Your task to perform on an android device: turn smart compose on in the gmail app Image 0: 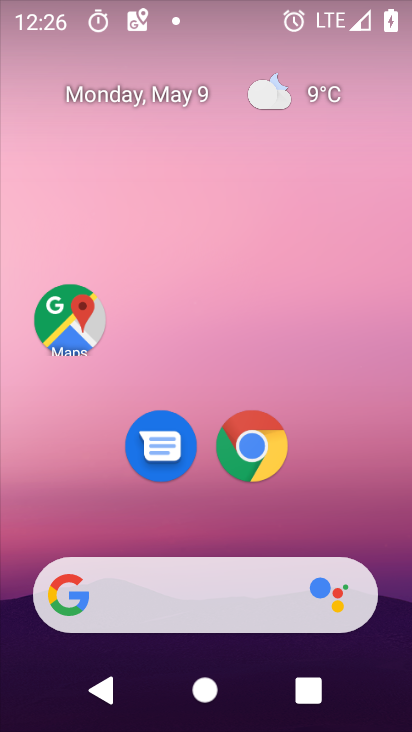
Step 0: drag from (360, 549) to (378, 54)
Your task to perform on an android device: turn smart compose on in the gmail app Image 1: 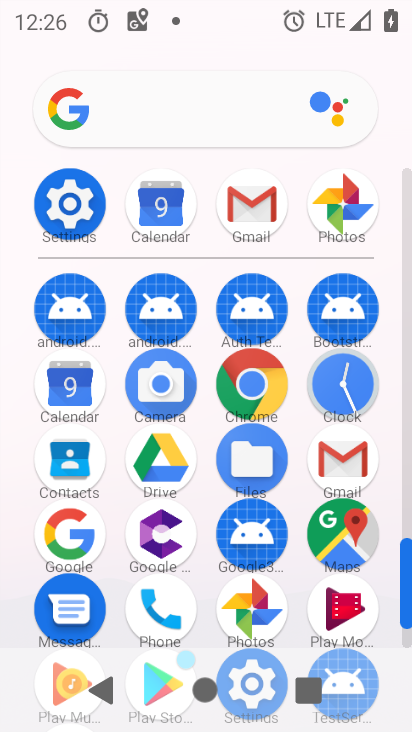
Step 1: click (242, 208)
Your task to perform on an android device: turn smart compose on in the gmail app Image 2: 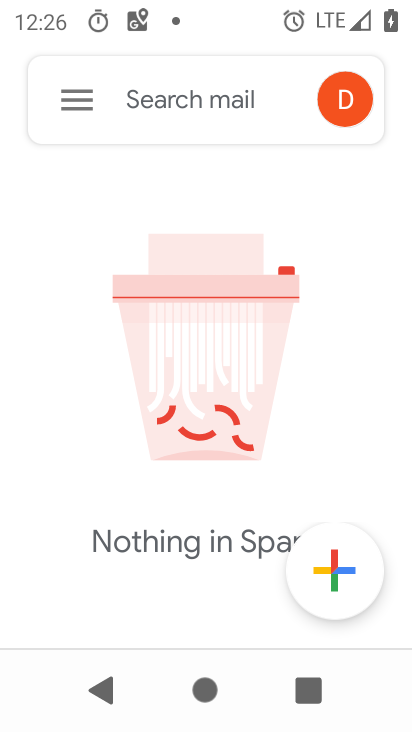
Step 2: click (62, 97)
Your task to perform on an android device: turn smart compose on in the gmail app Image 3: 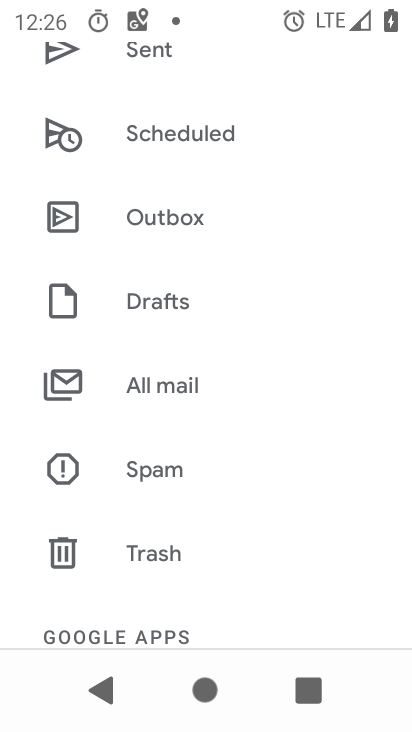
Step 3: drag from (223, 608) to (219, 112)
Your task to perform on an android device: turn smart compose on in the gmail app Image 4: 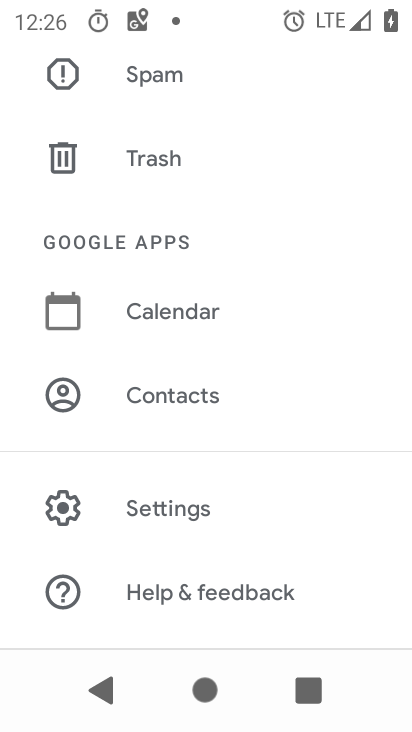
Step 4: click (174, 514)
Your task to perform on an android device: turn smart compose on in the gmail app Image 5: 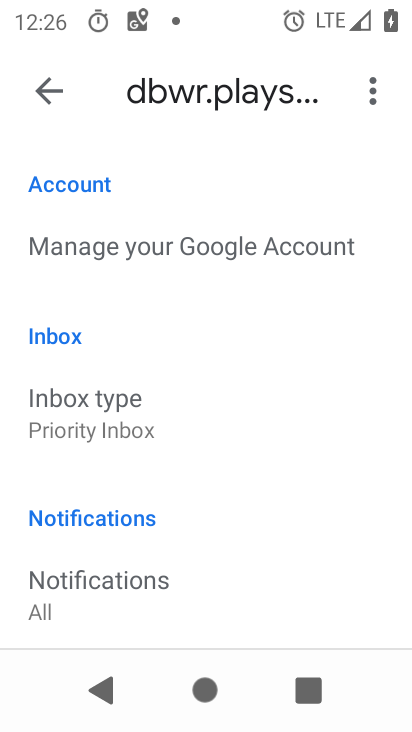
Step 5: task complete